Your task to perform on an android device: visit the assistant section in the google photos Image 0: 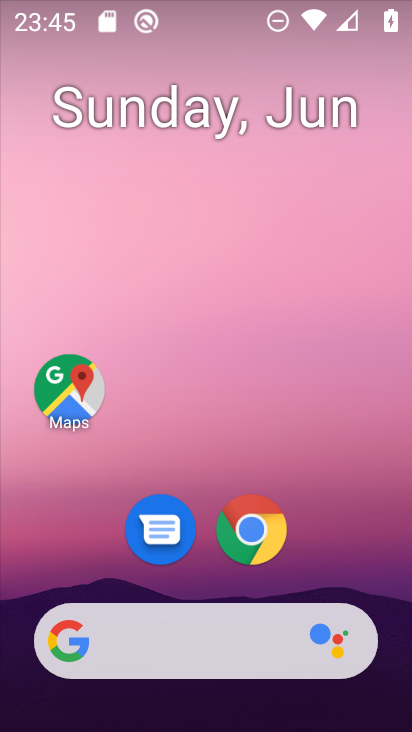
Step 0: click (318, 167)
Your task to perform on an android device: visit the assistant section in the google photos Image 1: 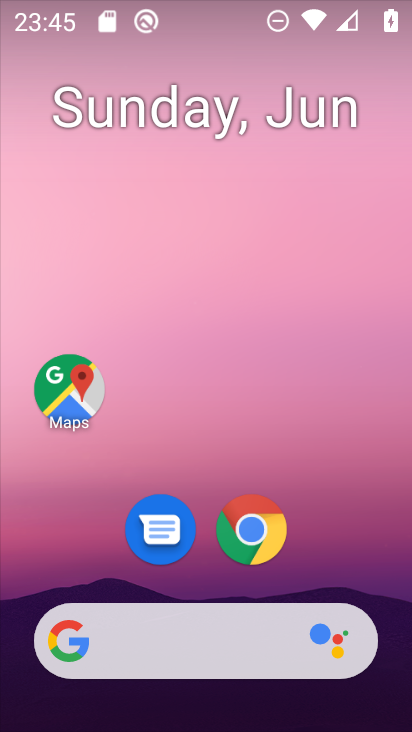
Step 1: drag from (400, 642) to (322, 29)
Your task to perform on an android device: visit the assistant section in the google photos Image 2: 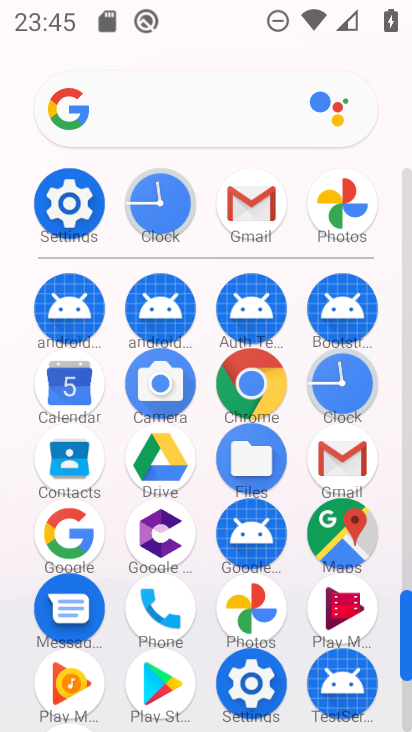
Step 2: click (250, 608)
Your task to perform on an android device: visit the assistant section in the google photos Image 3: 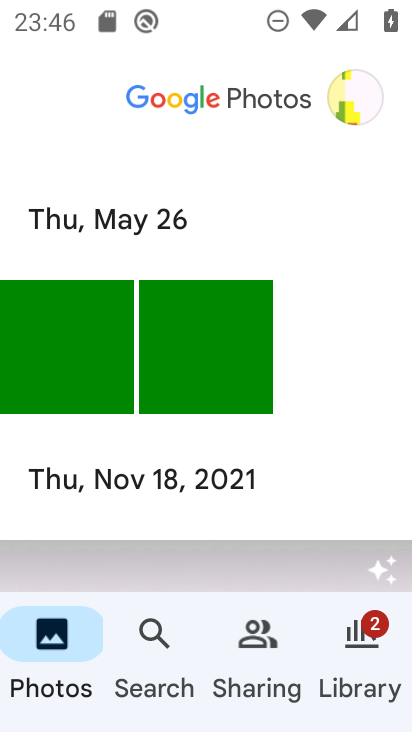
Step 3: task complete